Your task to perform on an android device: Search for "rayovac triple a" on target.com, select the first entry, and add it to the cart. Image 0: 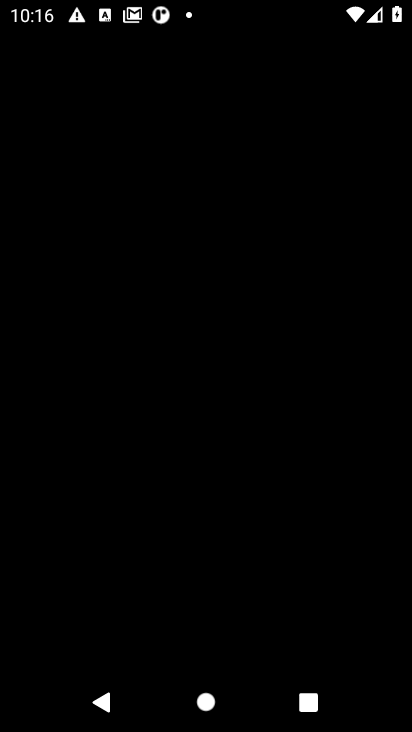
Step 0: press home button
Your task to perform on an android device: Search for "rayovac triple a" on target.com, select the first entry, and add it to the cart. Image 1: 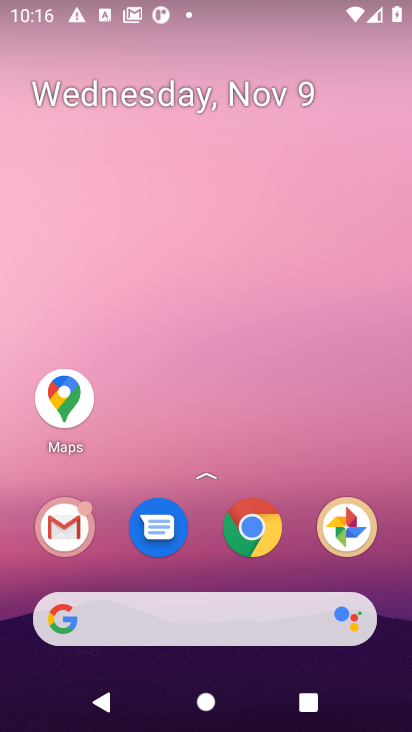
Step 1: click (257, 529)
Your task to perform on an android device: Search for "rayovac triple a" on target.com, select the first entry, and add it to the cart. Image 2: 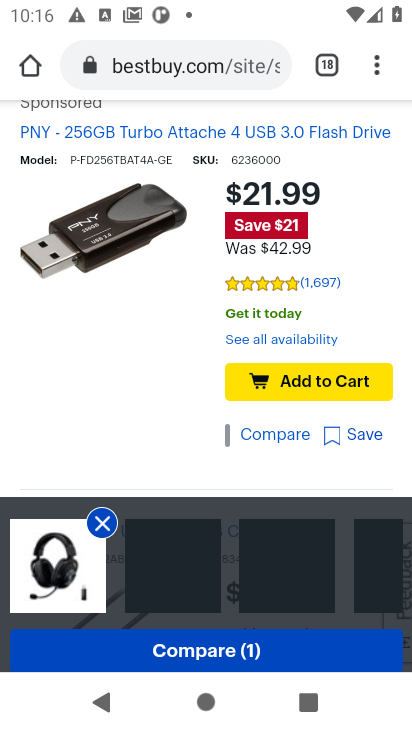
Step 2: click (160, 61)
Your task to perform on an android device: Search for "rayovac triple a" on target.com, select the first entry, and add it to the cart. Image 3: 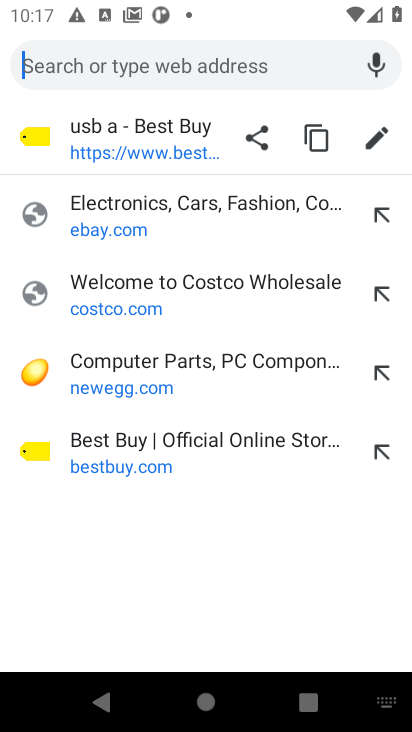
Step 3: type "target.com"
Your task to perform on an android device: Search for "rayovac triple a" on target.com, select the first entry, and add it to the cart. Image 4: 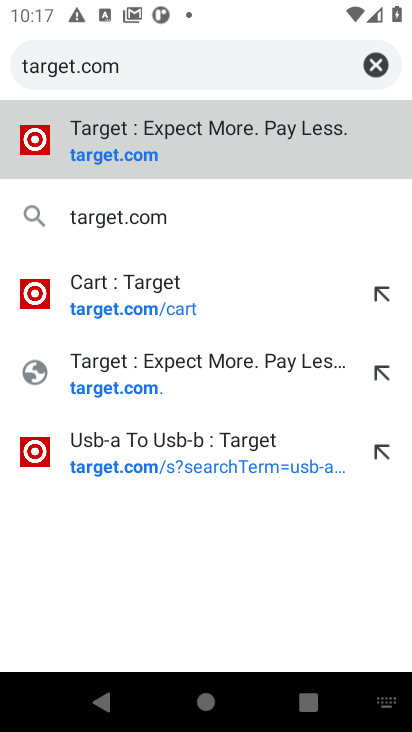
Step 4: click (144, 153)
Your task to perform on an android device: Search for "rayovac triple a" on target.com, select the first entry, and add it to the cart. Image 5: 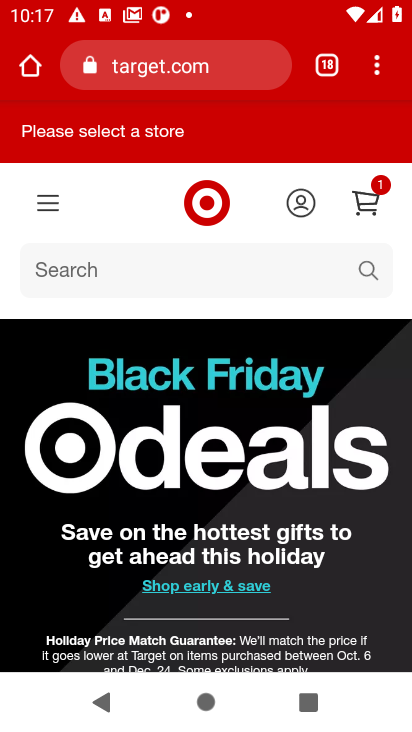
Step 5: click (373, 267)
Your task to perform on an android device: Search for "rayovac triple a" on target.com, select the first entry, and add it to the cart. Image 6: 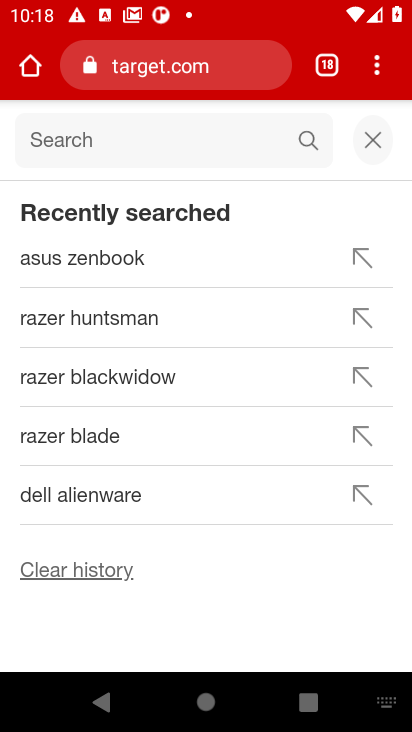
Step 6: type "rayovac triple a"
Your task to perform on an android device: Search for "rayovac triple a" on target.com, select the first entry, and add it to the cart. Image 7: 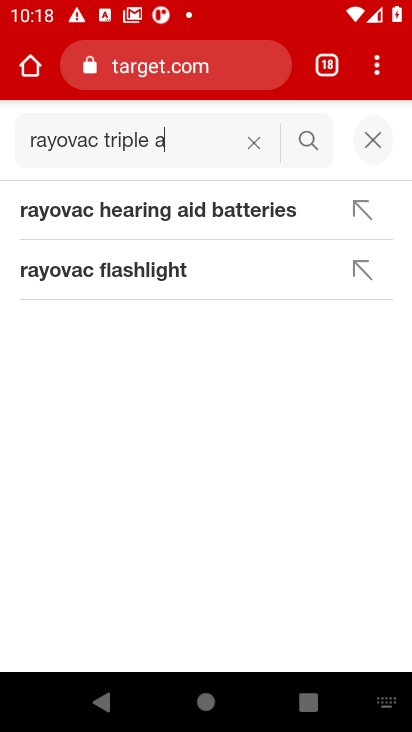
Step 7: click (300, 139)
Your task to perform on an android device: Search for "rayovac triple a" on target.com, select the first entry, and add it to the cart. Image 8: 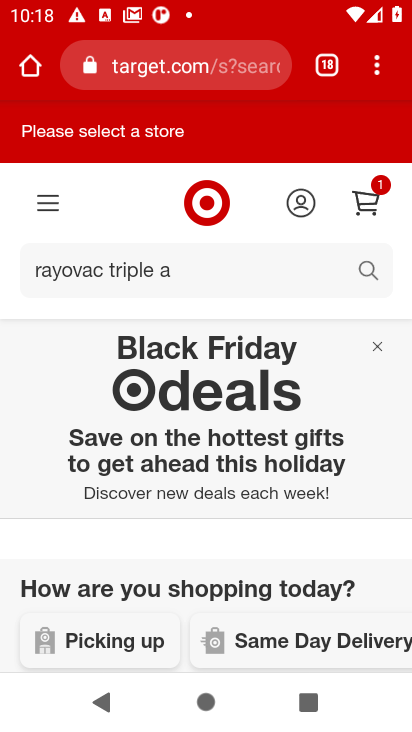
Step 8: drag from (245, 498) to (247, 251)
Your task to perform on an android device: Search for "rayovac triple a" on target.com, select the first entry, and add it to the cart. Image 9: 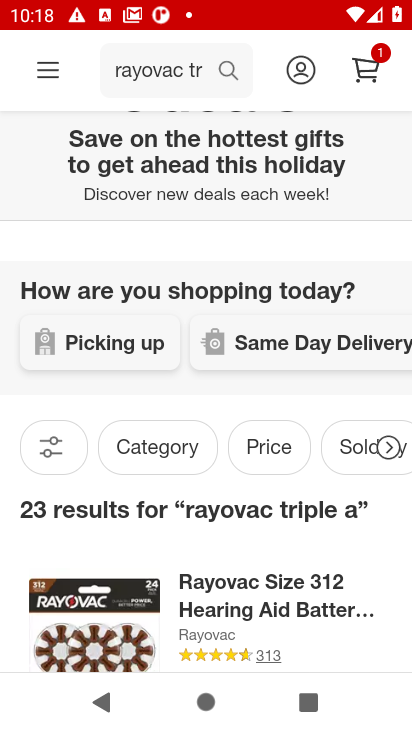
Step 9: drag from (213, 482) to (218, 209)
Your task to perform on an android device: Search for "rayovac triple a" on target.com, select the first entry, and add it to the cart. Image 10: 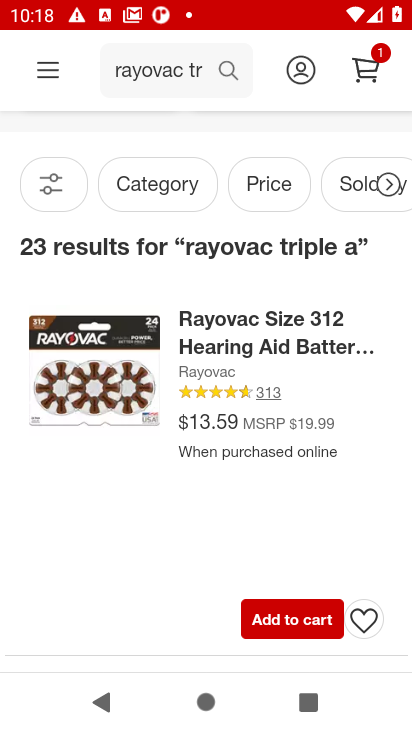
Step 10: click (94, 353)
Your task to perform on an android device: Search for "rayovac triple a" on target.com, select the first entry, and add it to the cart. Image 11: 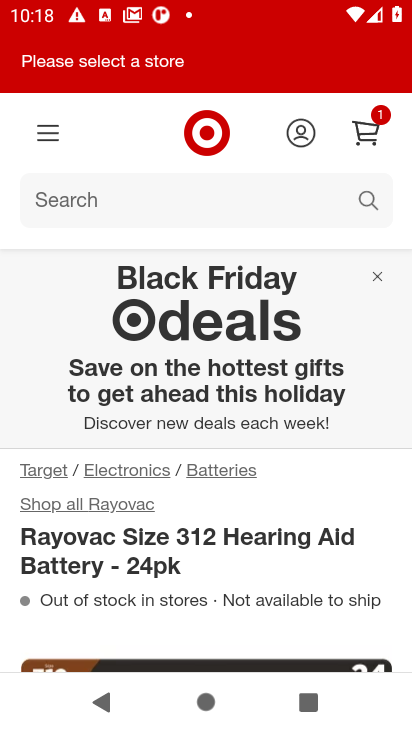
Step 11: task complete